Your task to perform on an android device: turn vacation reply on in the gmail app Image 0: 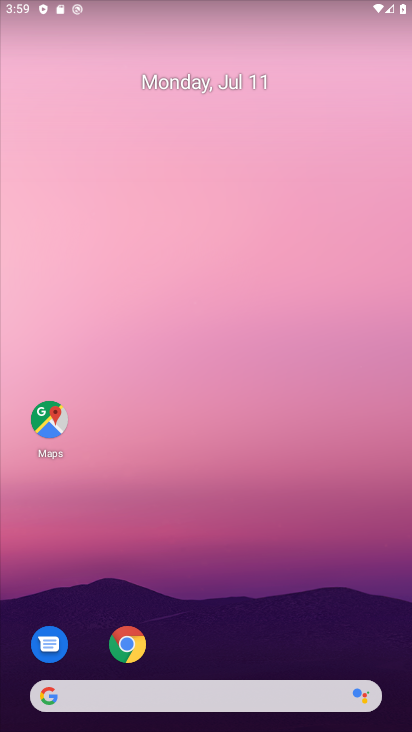
Step 0: drag from (241, 649) to (175, 173)
Your task to perform on an android device: turn vacation reply on in the gmail app Image 1: 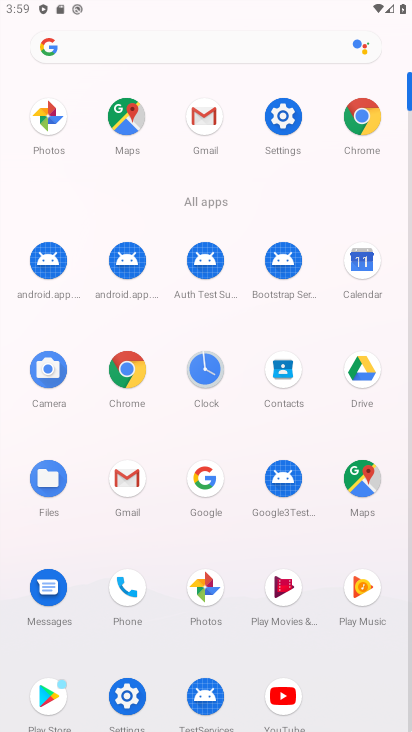
Step 1: click (219, 124)
Your task to perform on an android device: turn vacation reply on in the gmail app Image 2: 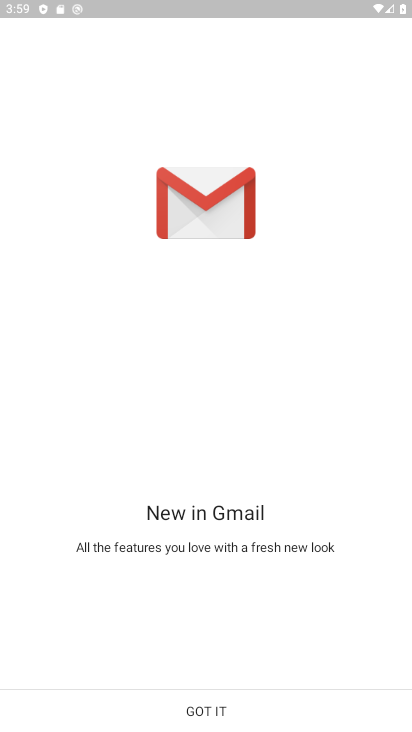
Step 2: click (231, 695)
Your task to perform on an android device: turn vacation reply on in the gmail app Image 3: 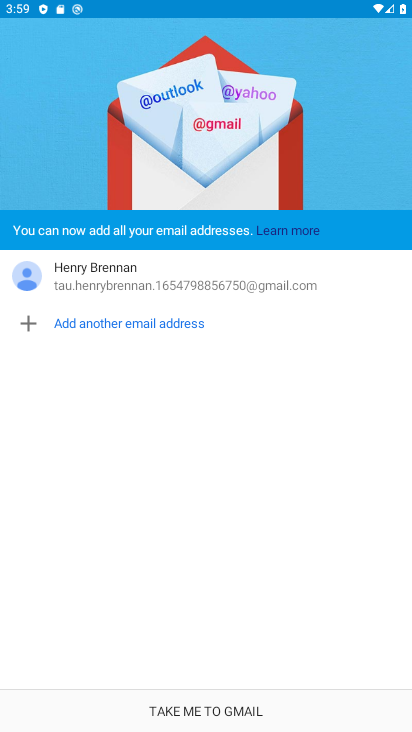
Step 3: click (232, 692)
Your task to perform on an android device: turn vacation reply on in the gmail app Image 4: 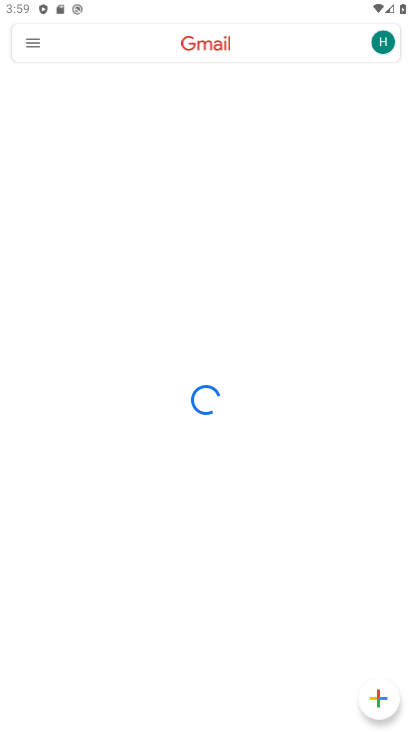
Step 4: click (32, 46)
Your task to perform on an android device: turn vacation reply on in the gmail app Image 5: 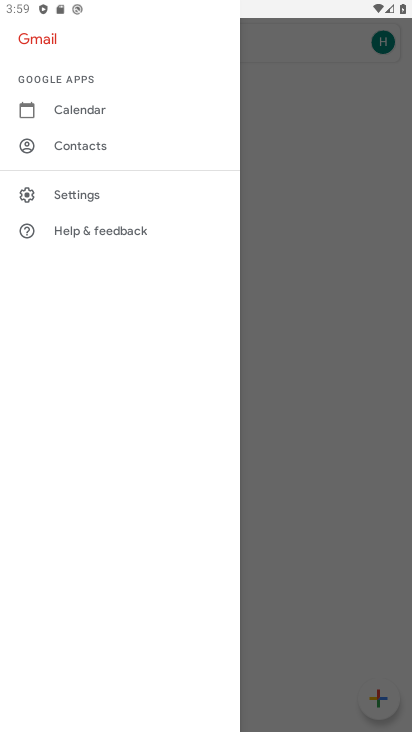
Step 5: click (91, 176)
Your task to perform on an android device: turn vacation reply on in the gmail app Image 6: 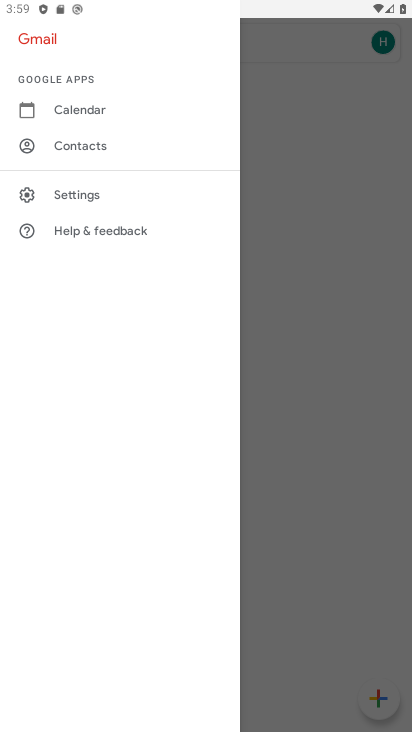
Step 6: click (87, 189)
Your task to perform on an android device: turn vacation reply on in the gmail app Image 7: 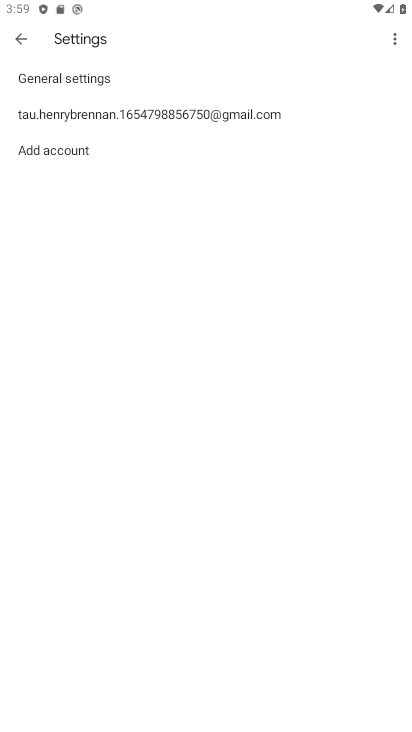
Step 7: click (110, 125)
Your task to perform on an android device: turn vacation reply on in the gmail app Image 8: 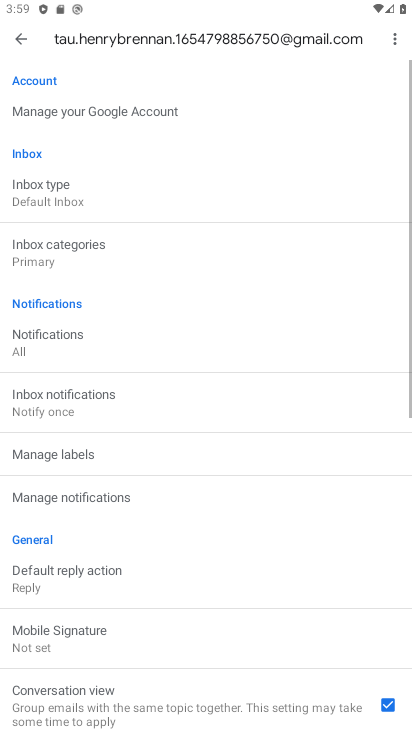
Step 8: drag from (131, 564) to (149, 194)
Your task to perform on an android device: turn vacation reply on in the gmail app Image 9: 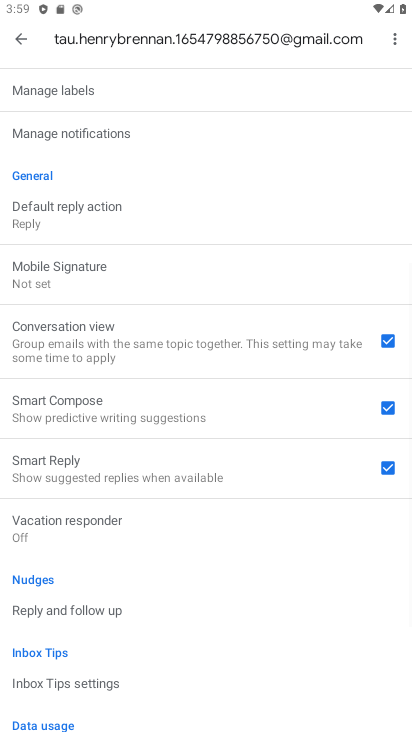
Step 9: drag from (142, 641) to (154, 217)
Your task to perform on an android device: turn vacation reply on in the gmail app Image 10: 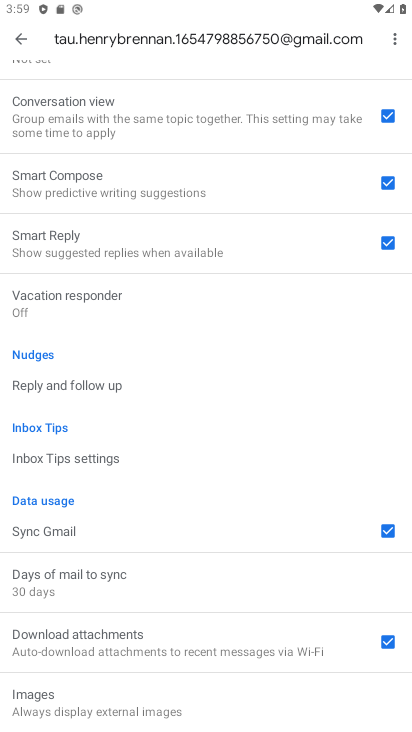
Step 10: click (92, 315)
Your task to perform on an android device: turn vacation reply on in the gmail app Image 11: 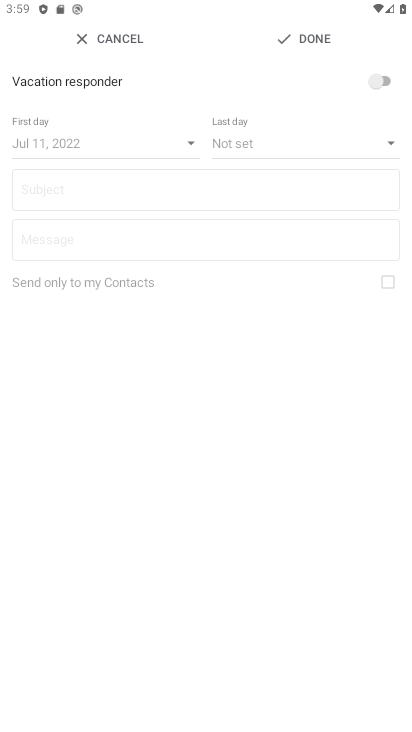
Step 11: click (382, 83)
Your task to perform on an android device: turn vacation reply on in the gmail app Image 12: 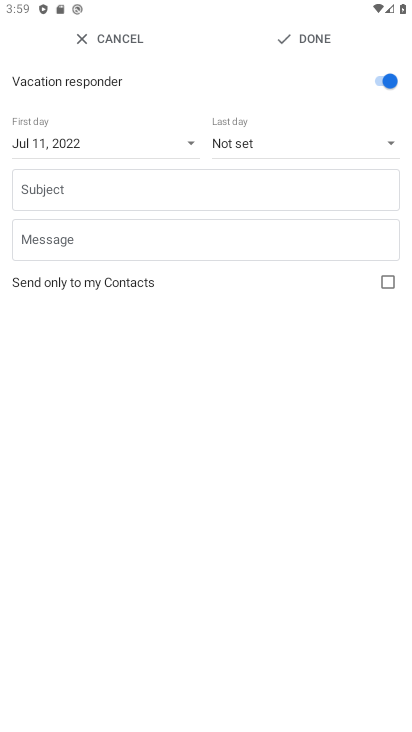
Step 12: task complete